Your task to perform on an android device: Go to Google Image 0: 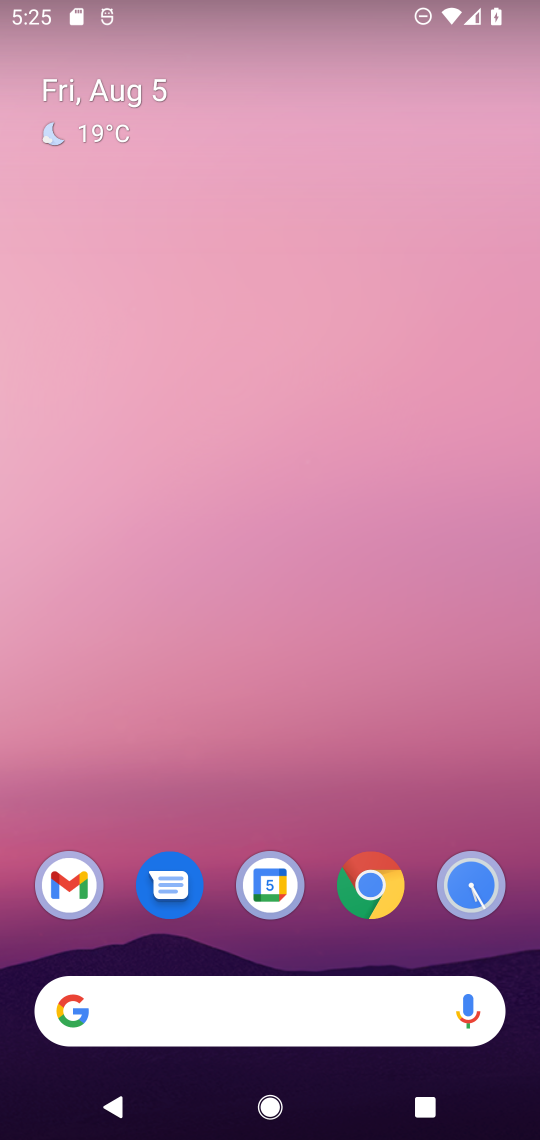
Step 0: drag from (316, 951) to (292, 125)
Your task to perform on an android device: Go to Google Image 1: 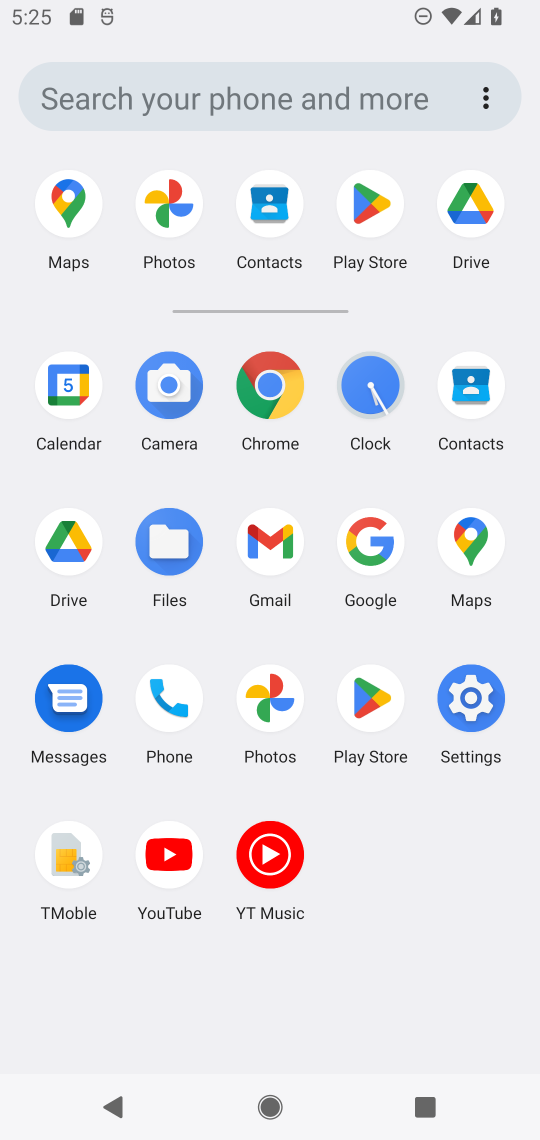
Step 1: click (386, 546)
Your task to perform on an android device: Go to Google Image 2: 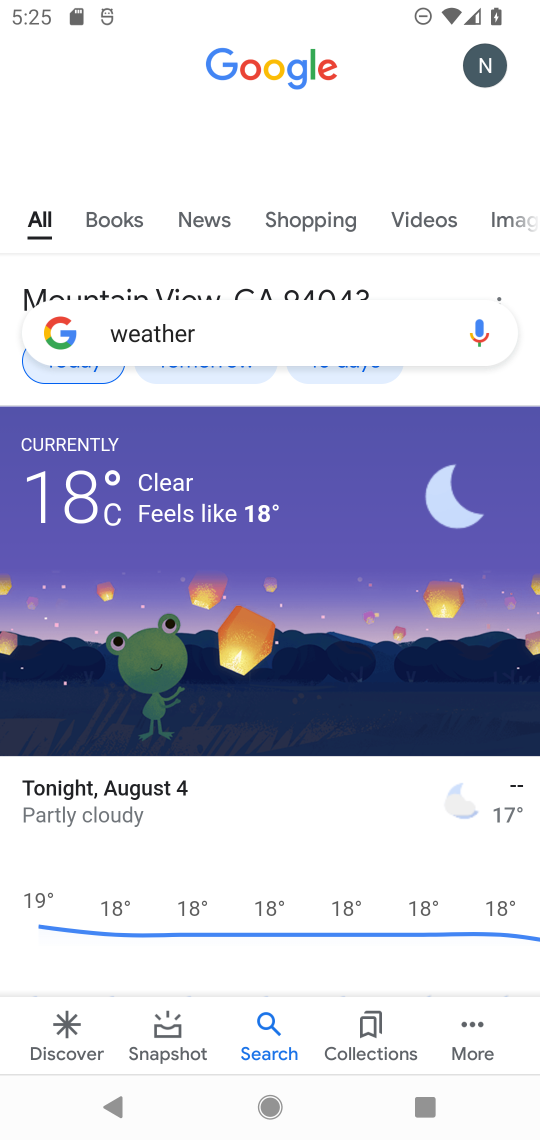
Step 2: task complete